Your task to perform on an android device: Show me recent news Image 0: 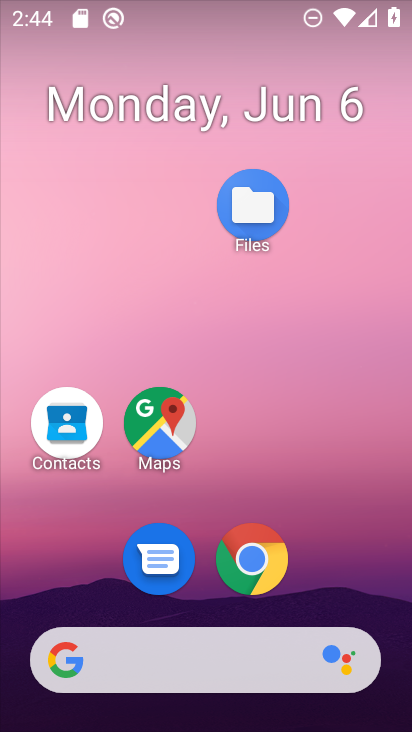
Step 0: drag from (201, 593) to (215, 37)
Your task to perform on an android device: Show me recent news Image 1: 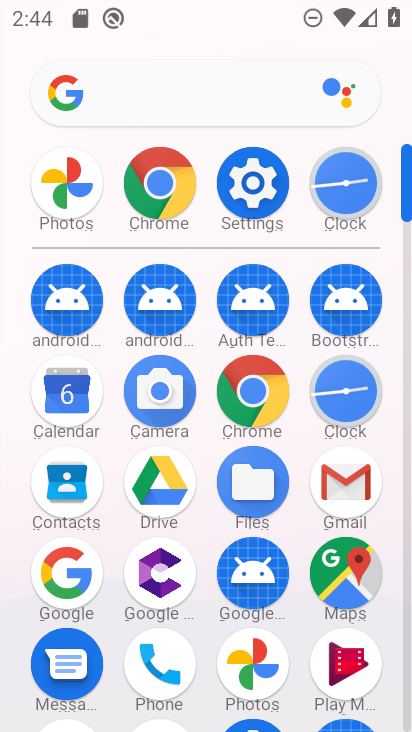
Step 1: click (82, 583)
Your task to perform on an android device: Show me recent news Image 2: 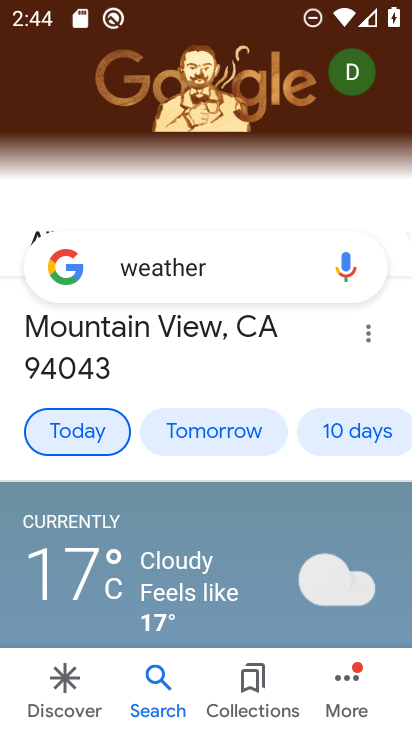
Step 2: click (229, 280)
Your task to perform on an android device: Show me recent news Image 3: 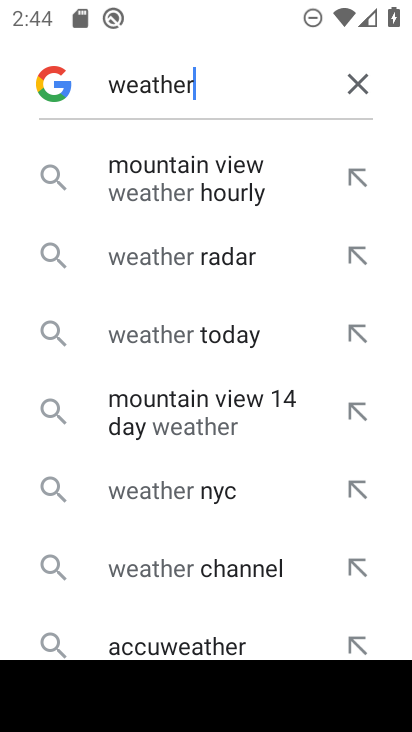
Step 3: click (346, 95)
Your task to perform on an android device: Show me recent news Image 4: 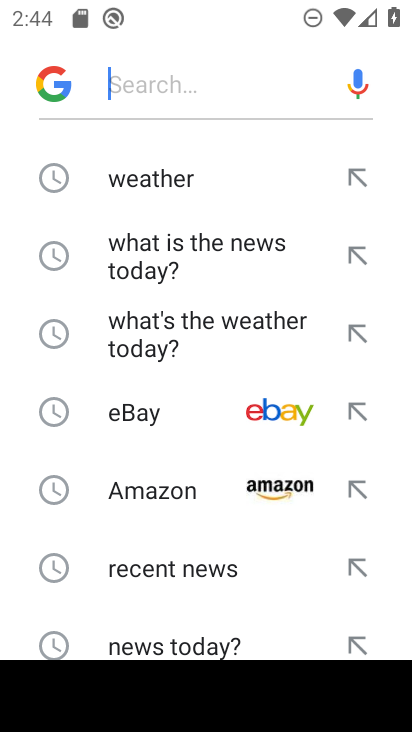
Step 4: click (228, 568)
Your task to perform on an android device: Show me recent news Image 5: 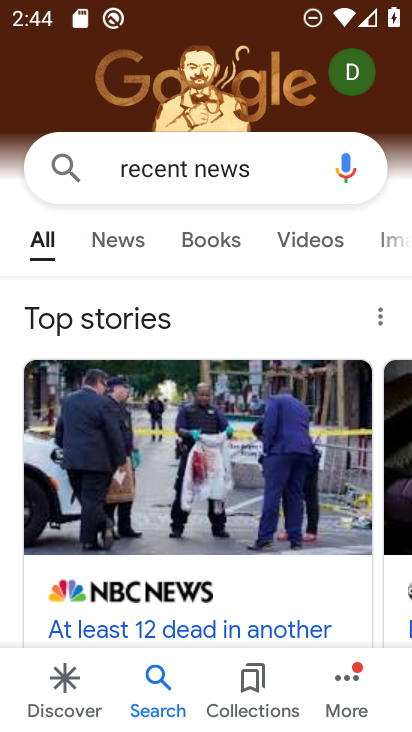
Step 5: click (118, 240)
Your task to perform on an android device: Show me recent news Image 6: 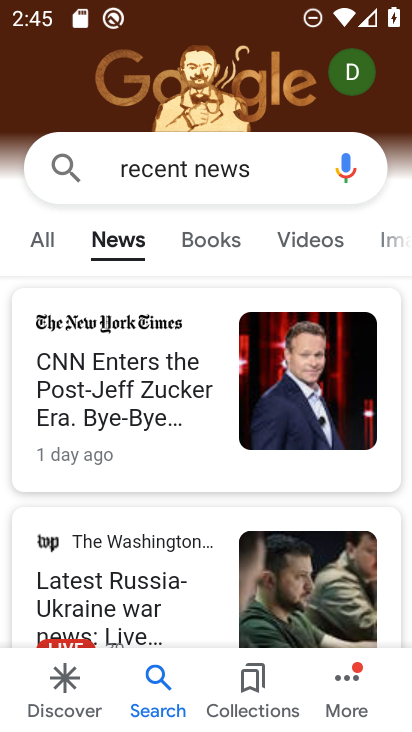
Step 6: task complete